Your task to perform on an android device: set the timer Image 0: 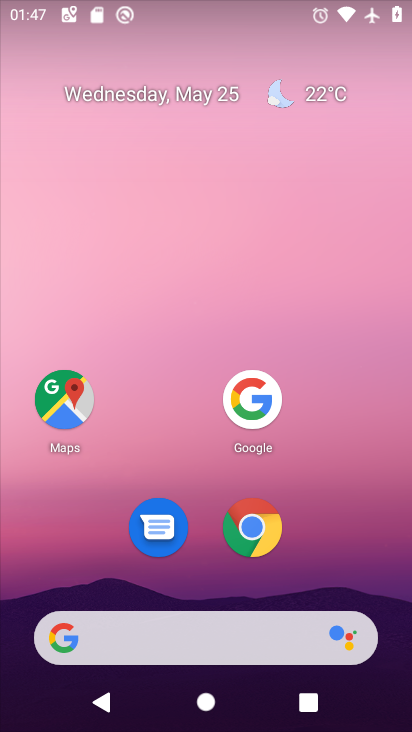
Step 0: press home button
Your task to perform on an android device: set the timer Image 1: 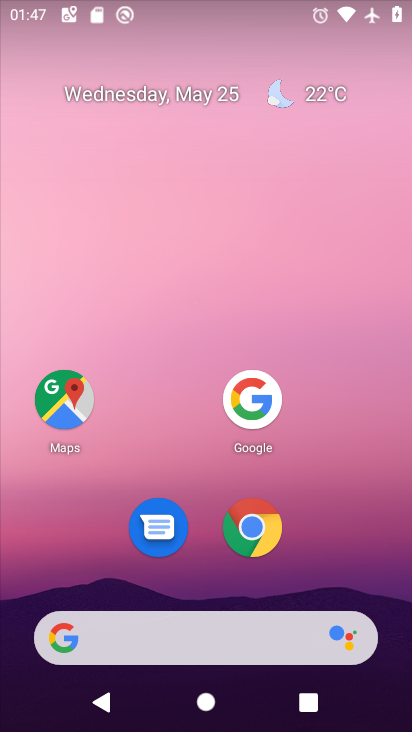
Step 1: drag from (224, 630) to (337, 56)
Your task to perform on an android device: set the timer Image 2: 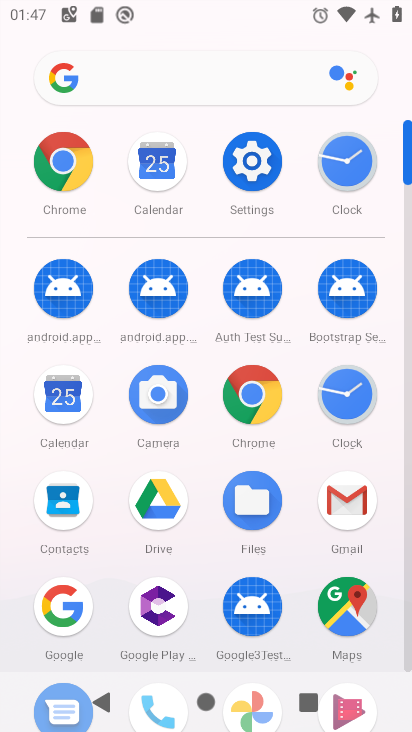
Step 2: click (341, 403)
Your task to perform on an android device: set the timer Image 3: 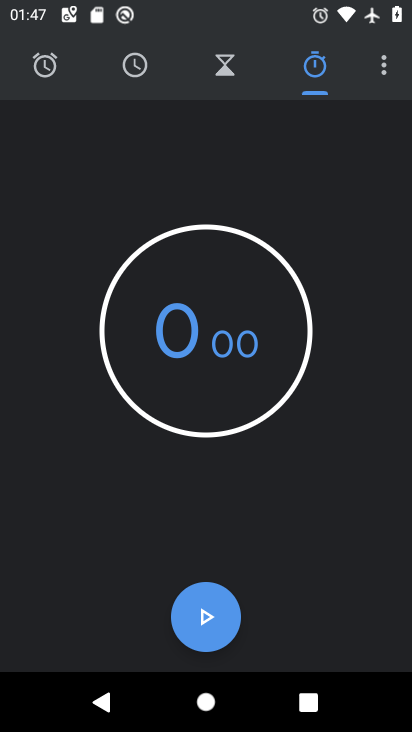
Step 3: click (220, 64)
Your task to perform on an android device: set the timer Image 4: 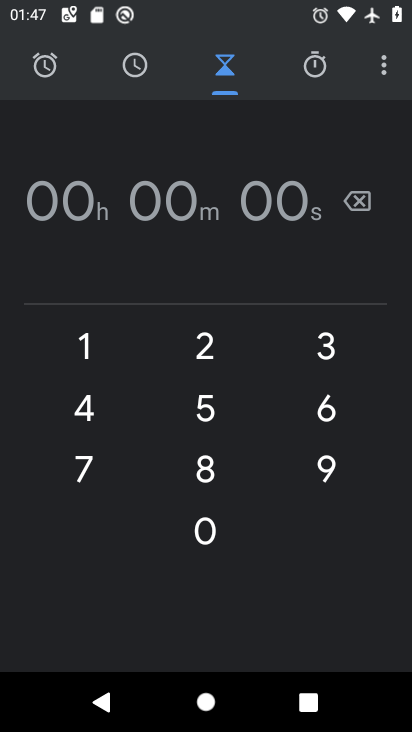
Step 4: click (206, 478)
Your task to perform on an android device: set the timer Image 5: 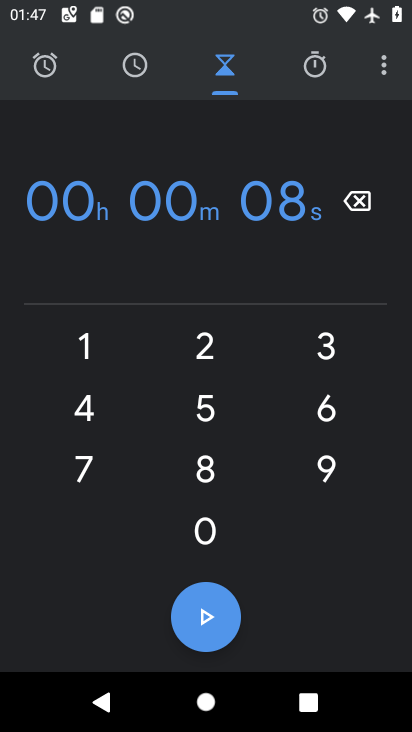
Step 5: click (208, 349)
Your task to perform on an android device: set the timer Image 6: 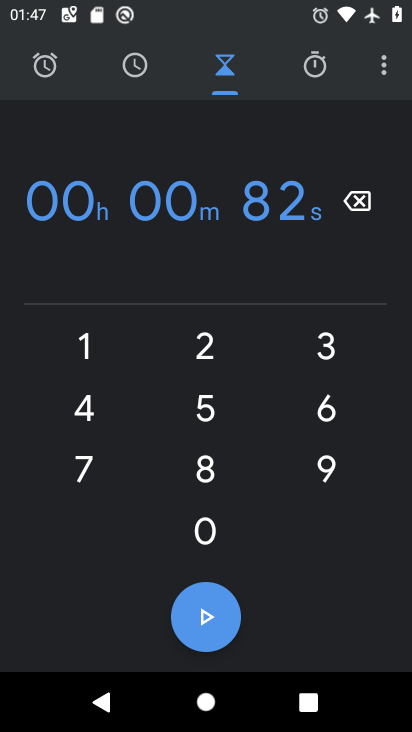
Step 6: click (206, 617)
Your task to perform on an android device: set the timer Image 7: 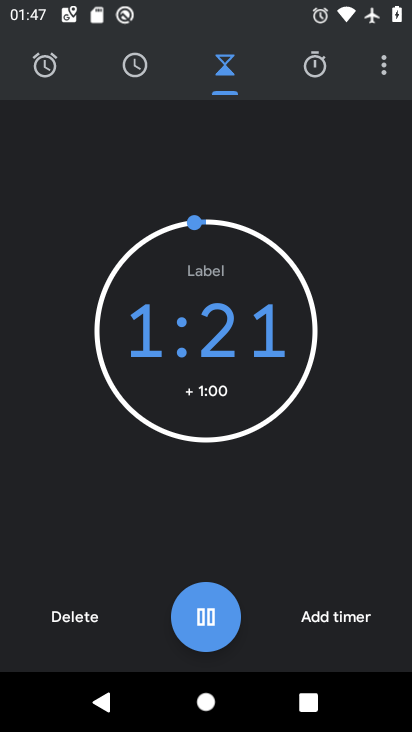
Step 7: click (206, 618)
Your task to perform on an android device: set the timer Image 8: 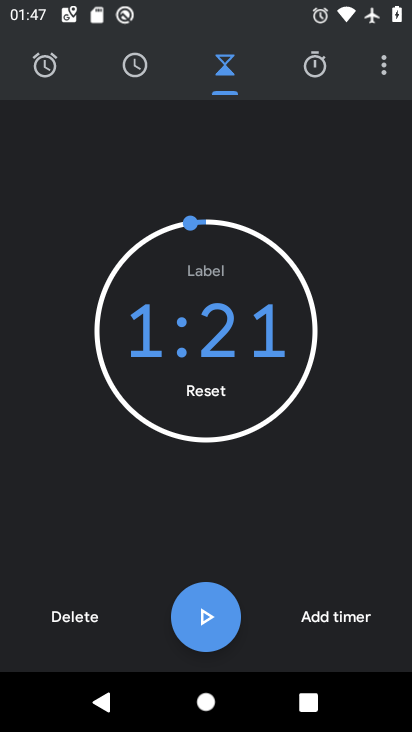
Step 8: task complete